Your task to perform on an android device: turn off javascript in the chrome app Image 0: 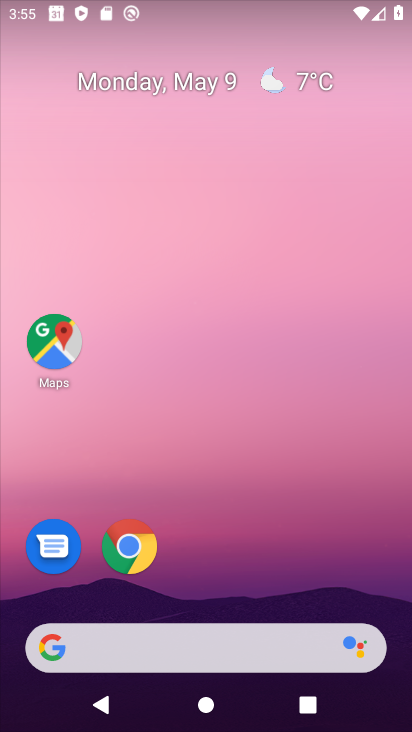
Step 0: click (145, 564)
Your task to perform on an android device: turn off javascript in the chrome app Image 1: 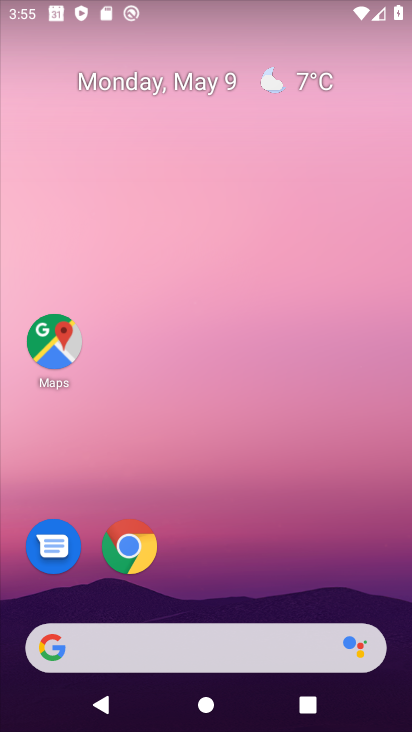
Step 1: click (145, 564)
Your task to perform on an android device: turn off javascript in the chrome app Image 2: 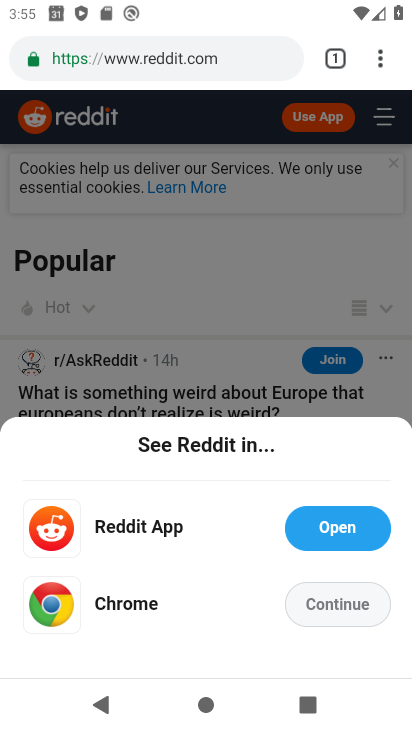
Step 2: drag from (380, 62) to (250, 578)
Your task to perform on an android device: turn off javascript in the chrome app Image 3: 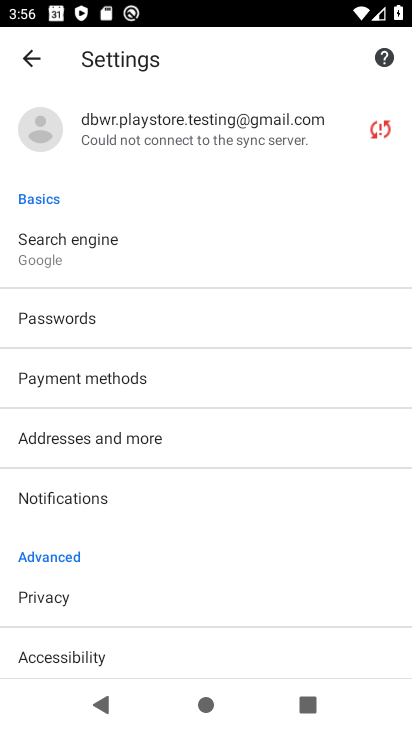
Step 3: drag from (142, 612) to (155, 507)
Your task to perform on an android device: turn off javascript in the chrome app Image 4: 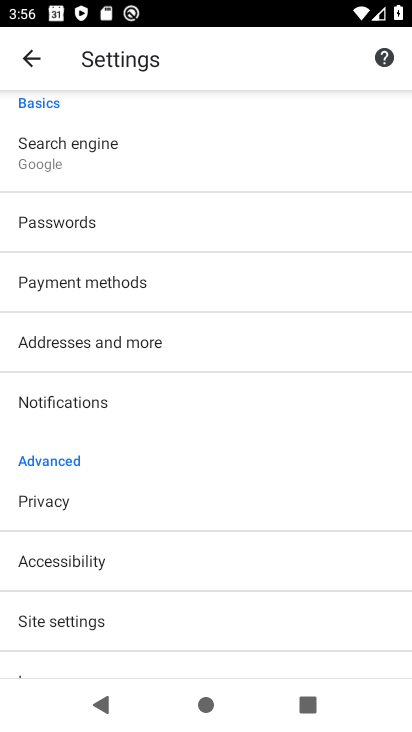
Step 4: drag from (136, 624) to (154, 551)
Your task to perform on an android device: turn off javascript in the chrome app Image 5: 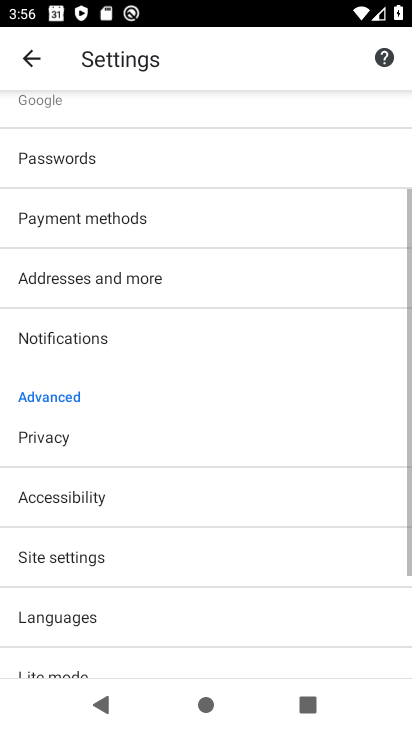
Step 5: click (154, 551)
Your task to perform on an android device: turn off javascript in the chrome app Image 6: 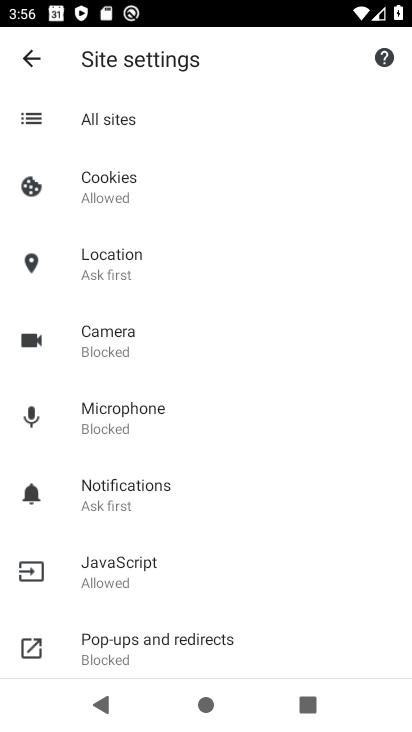
Step 6: click (181, 572)
Your task to perform on an android device: turn off javascript in the chrome app Image 7: 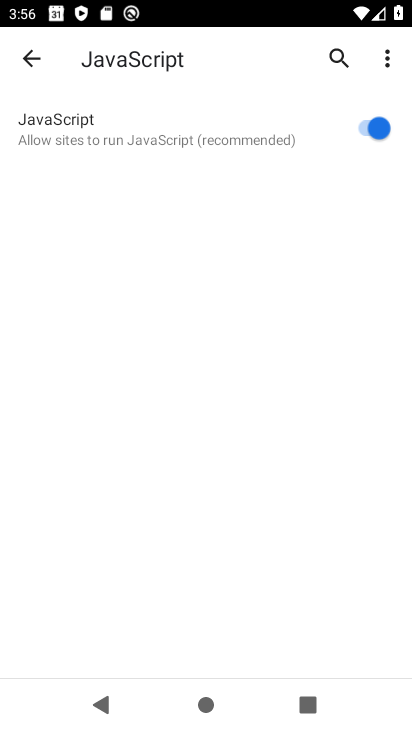
Step 7: click (365, 119)
Your task to perform on an android device: turn off javascript in the chrome app Image 8: 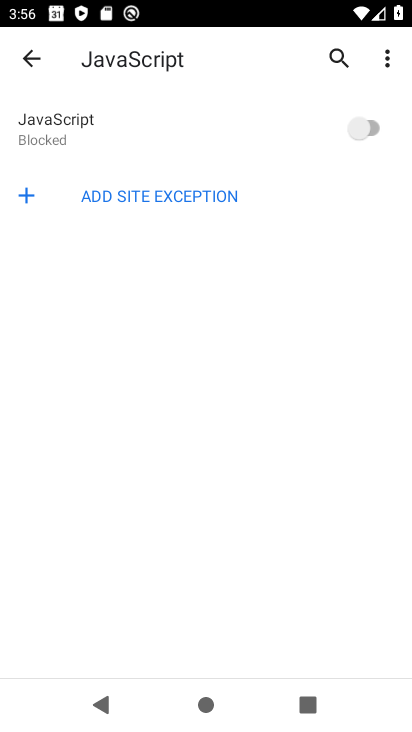
Step 8: task complete